Your task to perform on an android device: toggle sleep mode Image 0: 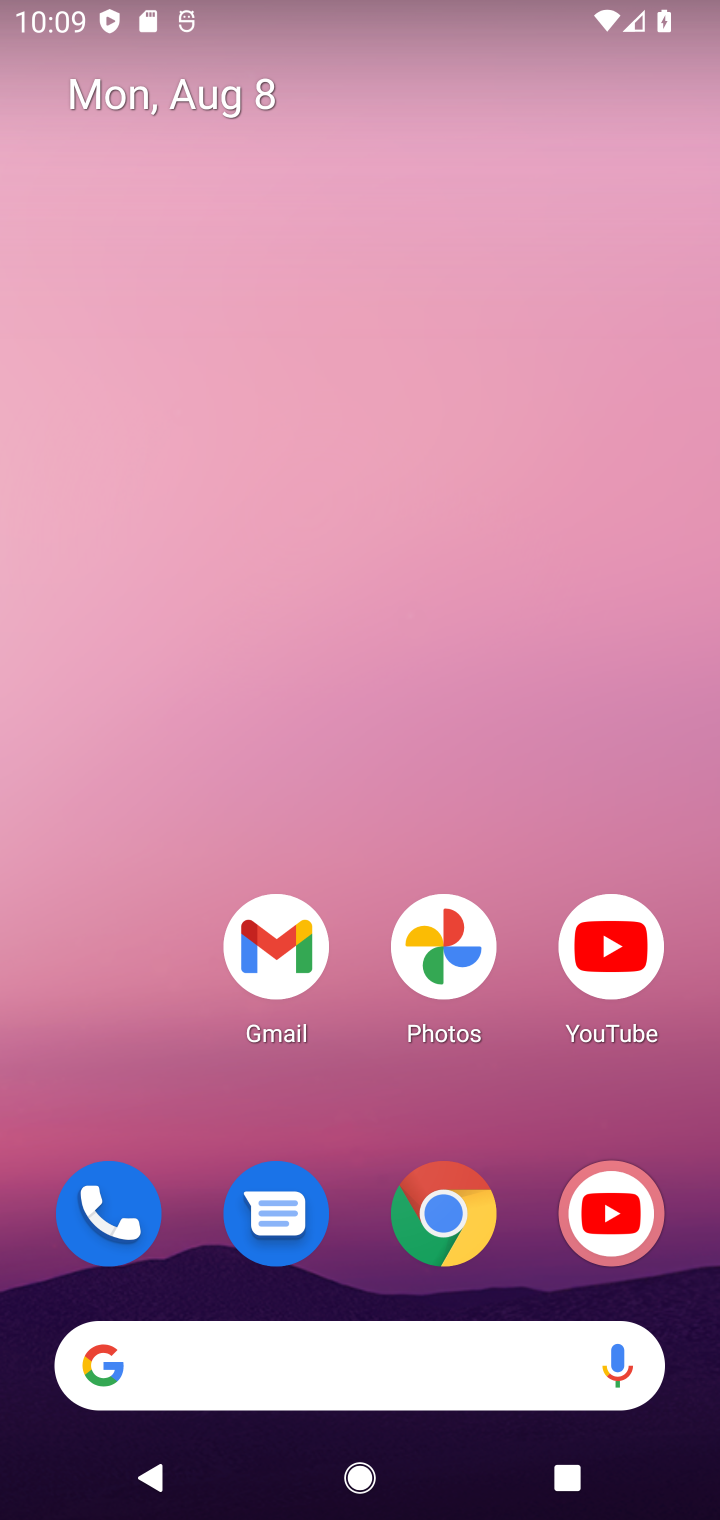
Step 0: drag from (363, 1133) to (385, 355)
Your task to perform on an android device: toggle sleep mode Image 1: 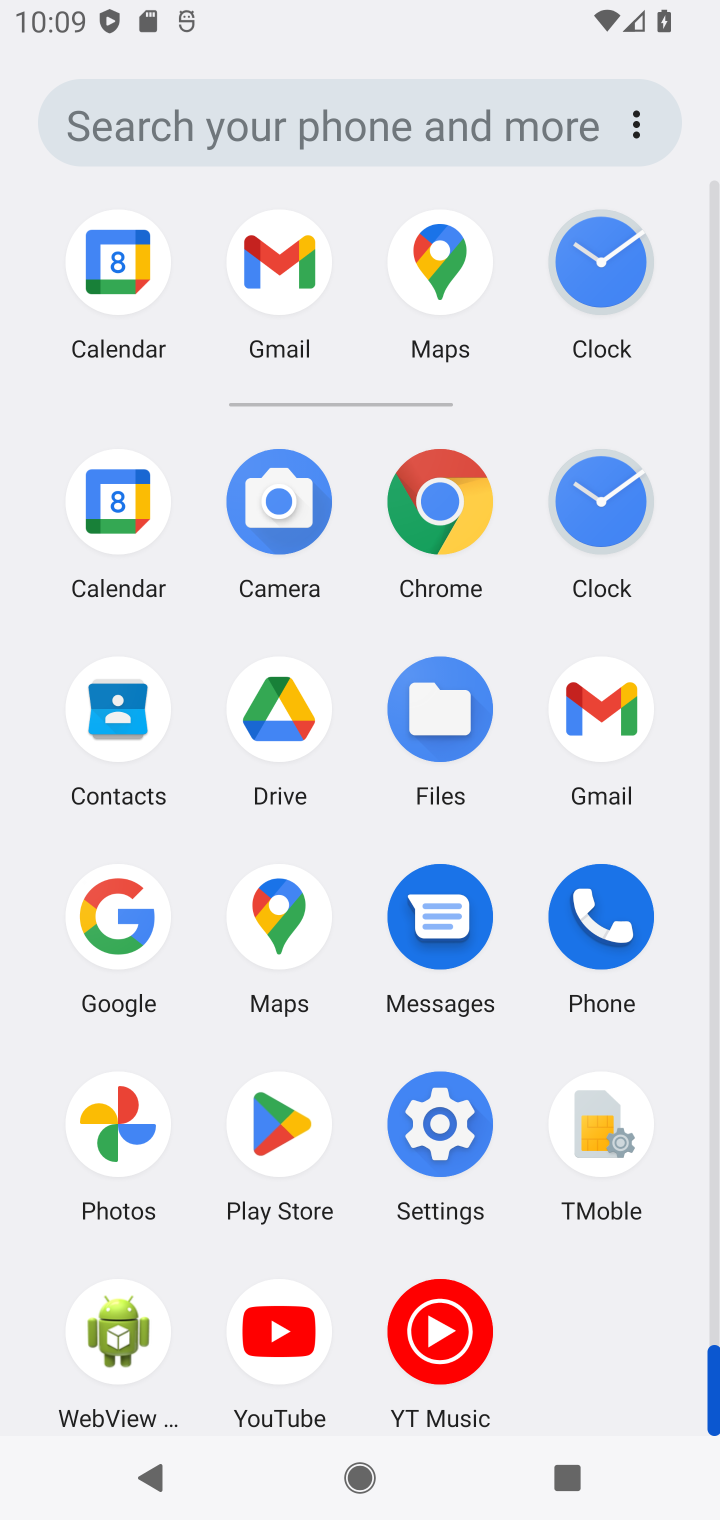
Step 1: click (422, 1117)
Your task to perform on an android device: toggle sleep mode Image 2: 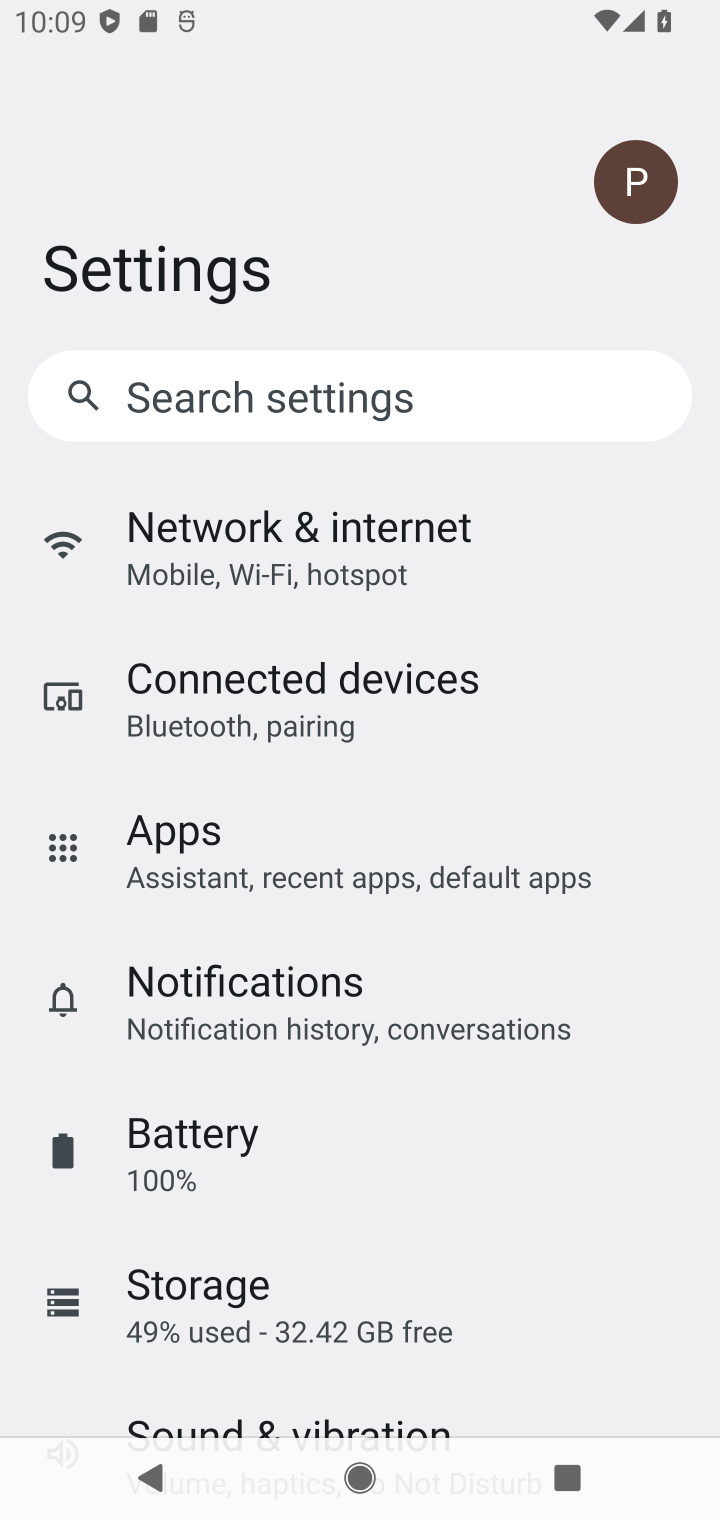
Step 2: task complete